Your task to perform on an android device: change the clock style Image 0: 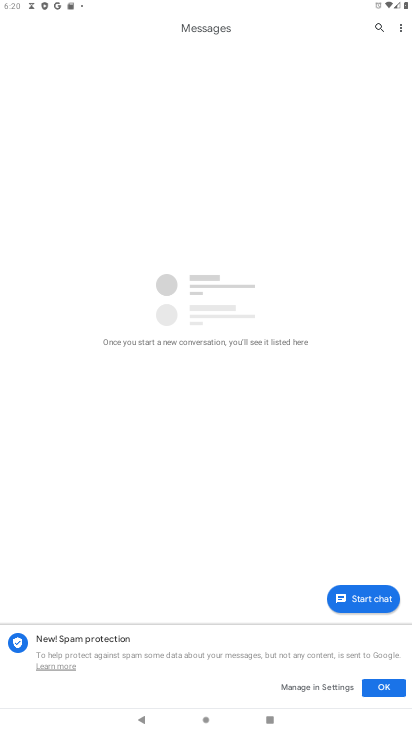
Step 0: press home button
Your task to perform on an android device: change the clock style Image 1: 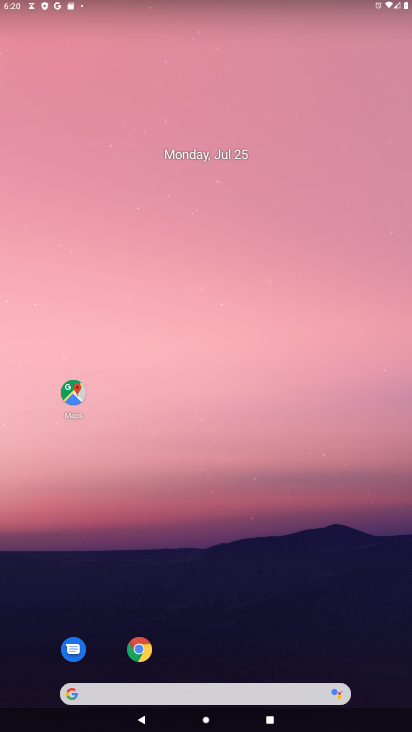
Step 1: drag from (274, 507) to (329, 75)
Your task to perform on an android device: change the clock style Image 2: 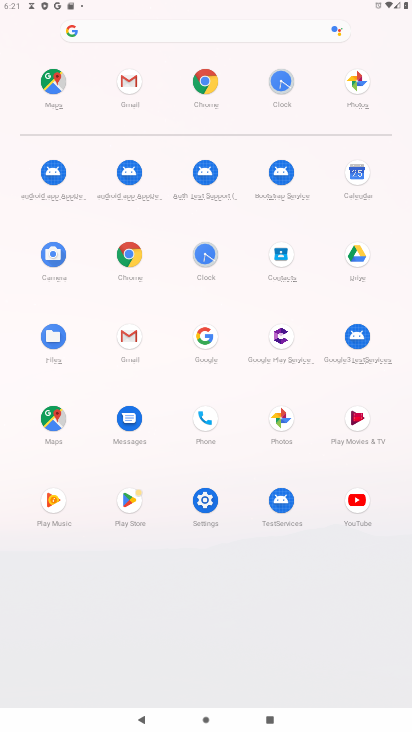
Step 2: click (206, 249)
Your task to perform on an android device: change the clock style Image 3: 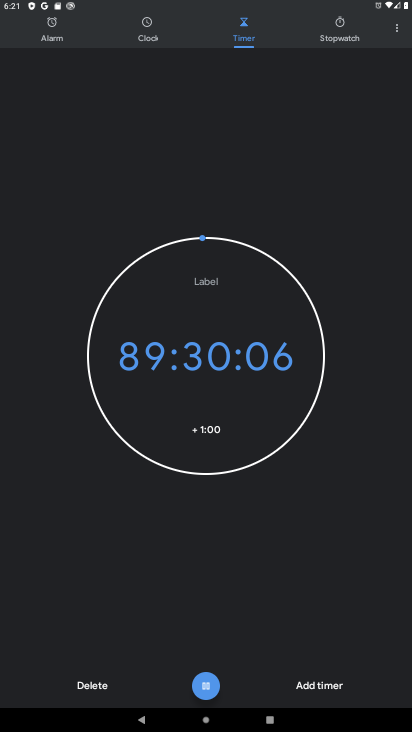
Step 3: click (396, 22)
Your task to perform on an android device: change the clock style Image 4: 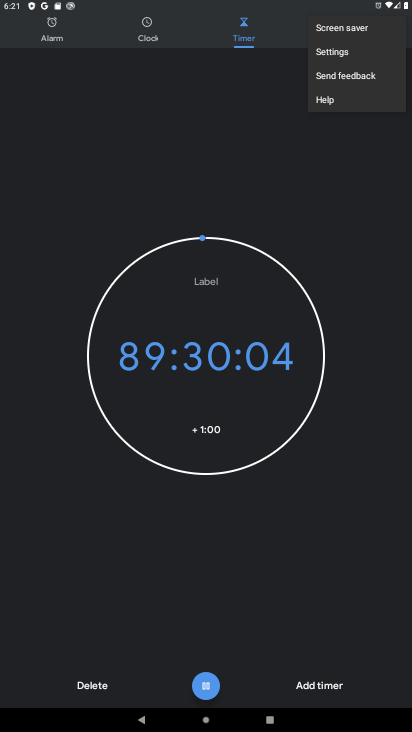
Step 4: click (338, 52)
Your task to perform on an android device: change the clock style Image 5: 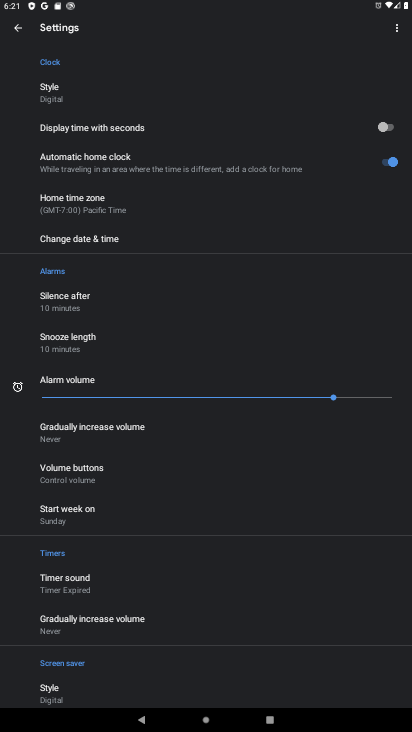
Step 5: click (78, 82)
Your task to perform on an android device: change the clock style Image 6: 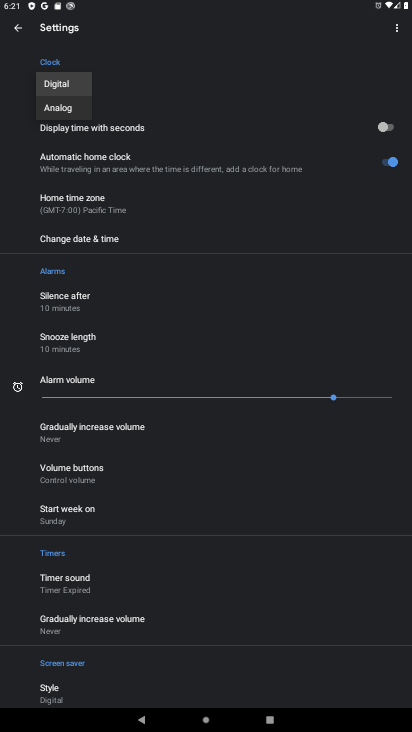
Step 6: click (60, 111)
Your task to perform on an android device: change the clock style Image 7: 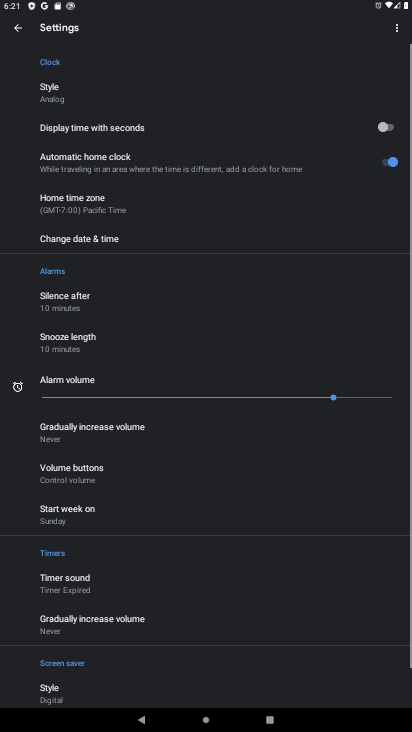
Step 7: task complete